Your task to perform on an android device: toggle notifications settings in the gmail app Image 0: 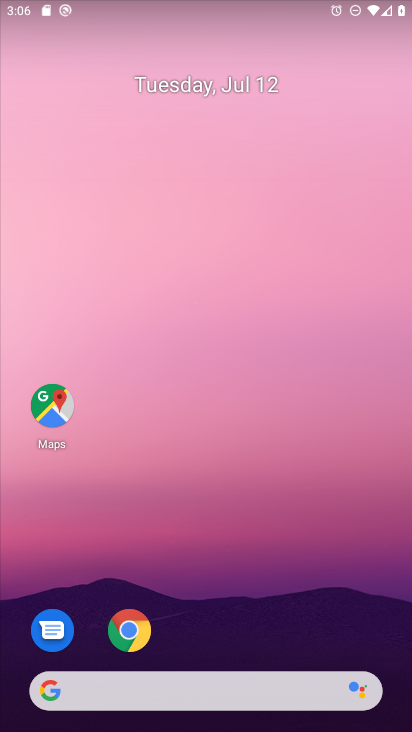
Step 0: drag from (219, 640) to (221, 179)
Your task to perform on an android device: toggle notifications settings in the gmail app Image 1: 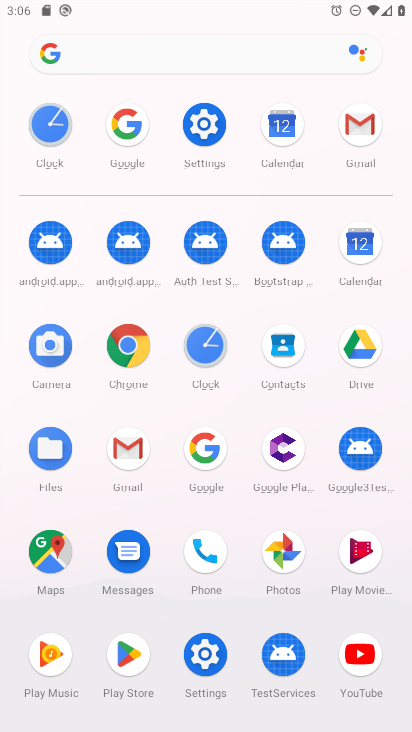
Step 1: click (345, 124)
Your task to perform on an android device: toggle notifications settings in the gmail app Image 2: 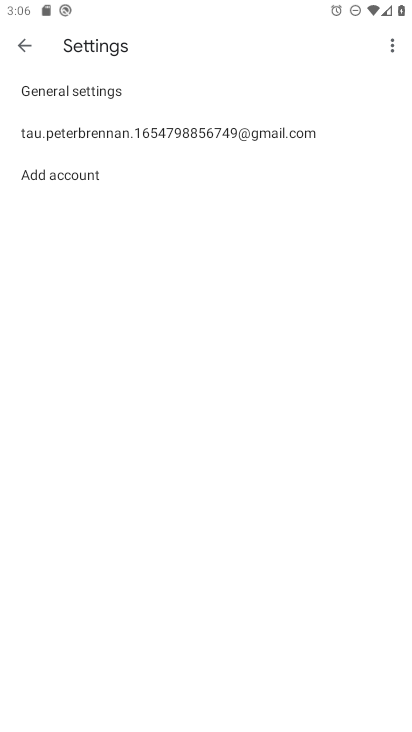
Step 2: click (71, 128)
Your task to perform on an android device: toggle notifications settings in the gmail app Image 3: 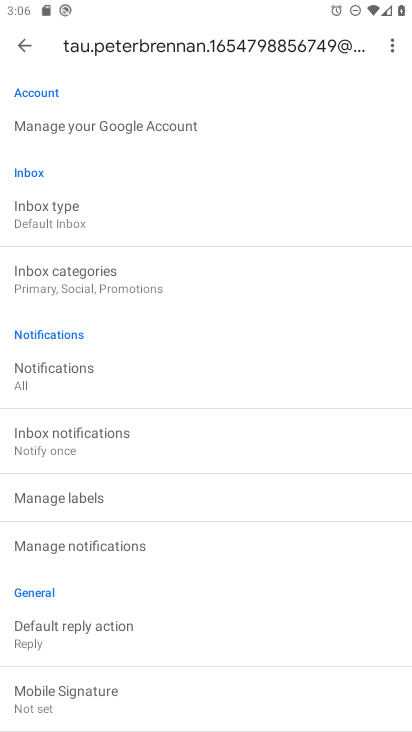
Step 3: click (171, 547)
Your task to perform on an android device: toggle notifications settings in the gmail app Image 4: 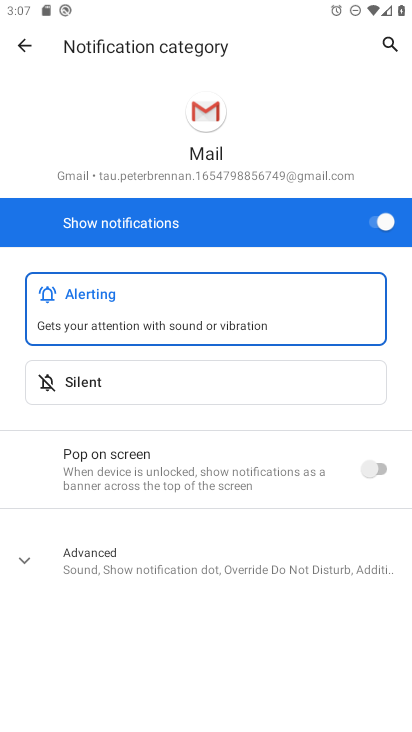
Step 4: click (377, 217)
Your task to perform on an android device: toggle notifications settings in the gmail app Image 5: 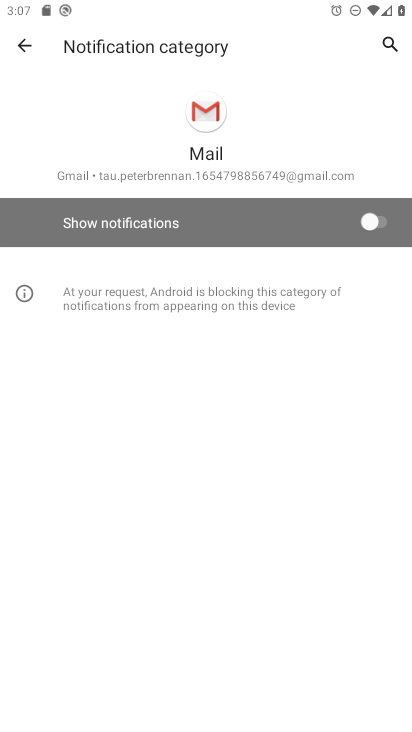
Step 5: task complete